Your task to perform on an android device: remove spam from my inbox in the gmail app Image 0: 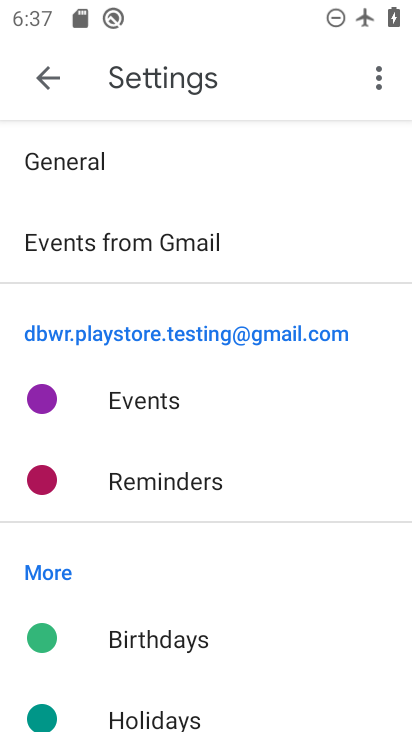
Step 0: press home button
Your task to perform on an android device: remove spam from my inbox in the gmail app Image 1: 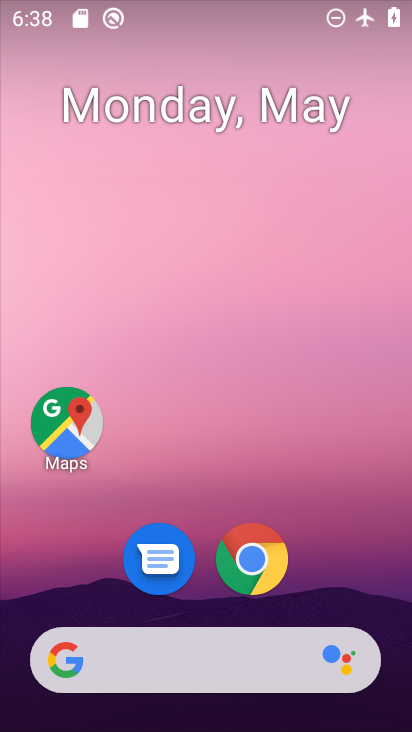
Step 1: drag from (322, 545) to (189, 150)
Your task to perform on an android device: remove spam from my inbox in the gmail app Image 2: 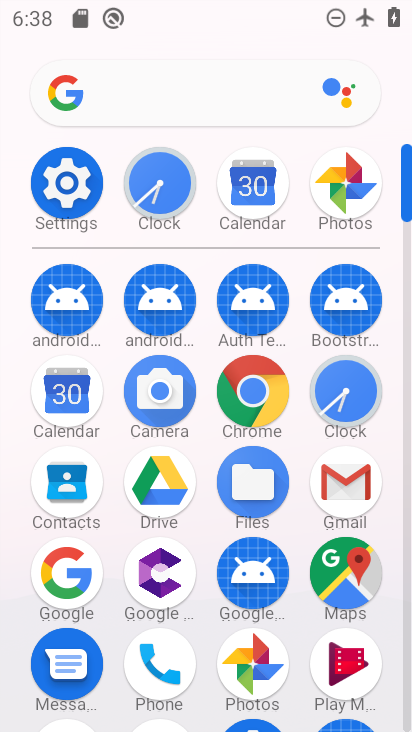
Step 2: click (334, 476)
Your task to perform on an android device: remove spam from my inbox in the gmail app Image 3: 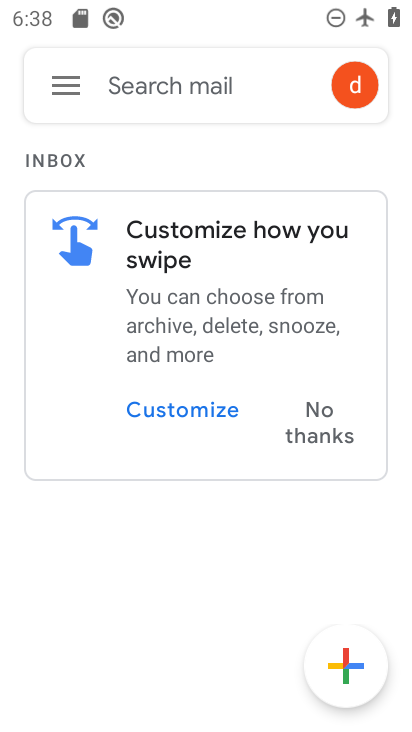
Step 3: click (64, 80)
Your task to perform on an android device: remove spam from my inbox in the gmail app Image 4: 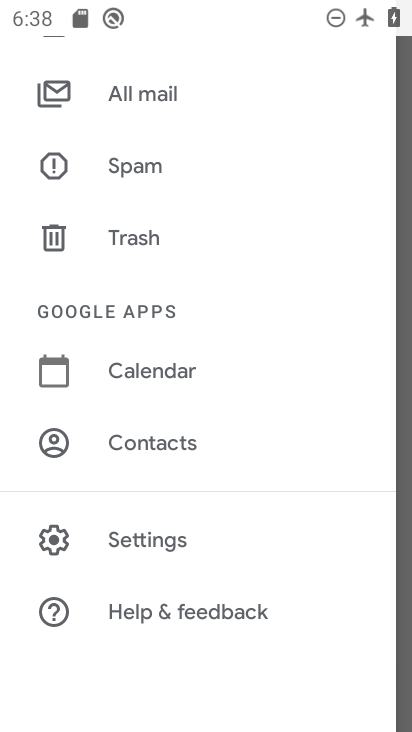
Step 4: click (130, 170)
Your task to perform on an android device: remove spam from my inbox in the gmail app Image 5: 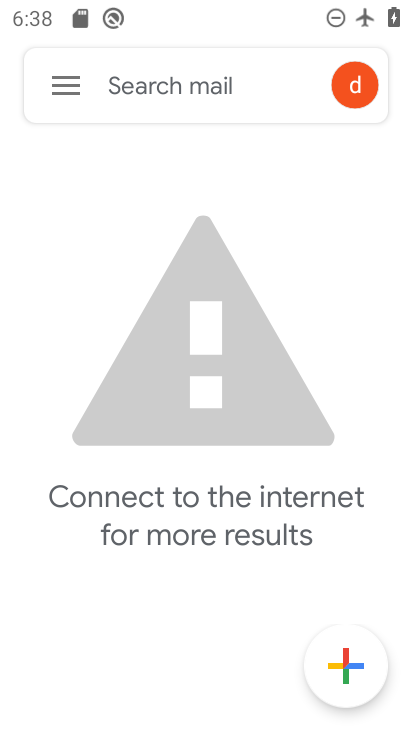
Step 5: task complete